Your task to perform on an android device: clear history in the chrome app Image 0: 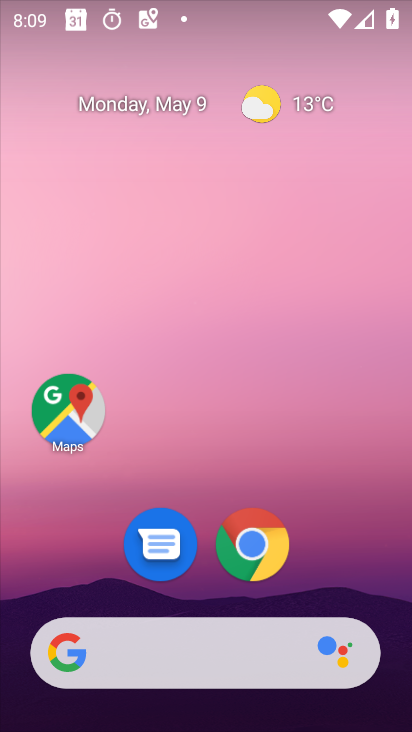
Step 0: drag from (361, 569) to (319, 14)
Your task to perform on an android device: clear history in the chrome app Image 1: 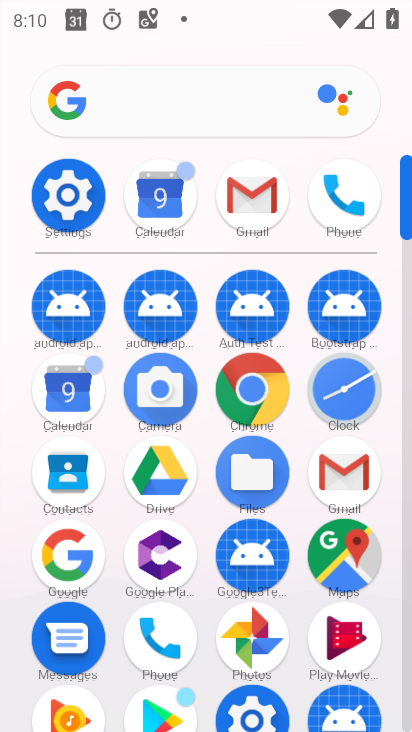
Step 1: click (264, 397)
Your task to perform on an android device: clear history in the chrome app Image 2: 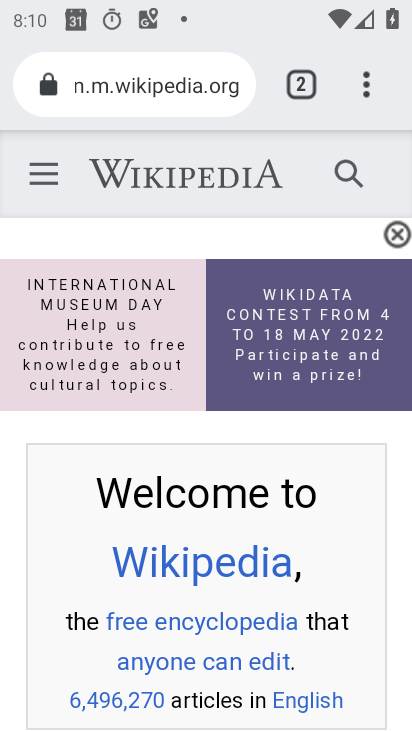
Step 2: drag from (370, 94) to (103, 482)
Your task to perform on an android device: clear history in the chrome app Image 3: 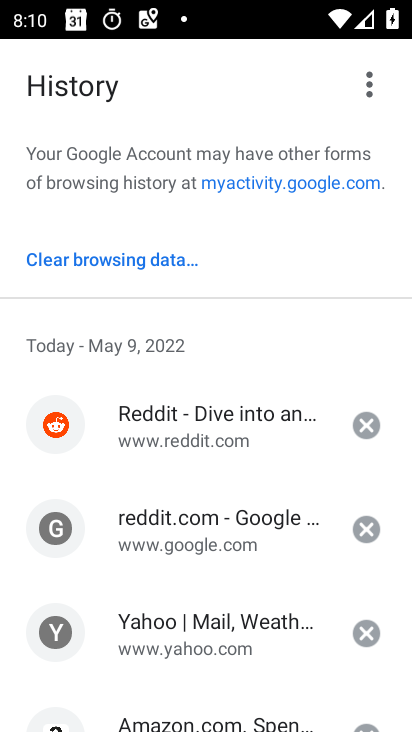
Step 3: click (68, 257)
Your task to perform on an android device: clear history in the chrome app Image 4: 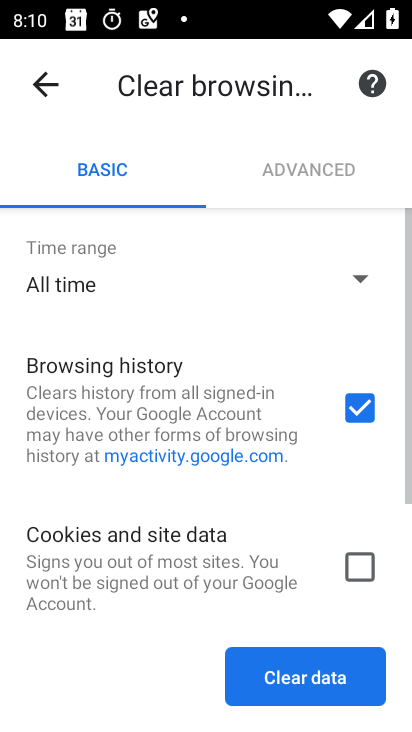
Step 4: click (306, 691)
Your task to perform on an android device: clear history in the chrome app Image 5: 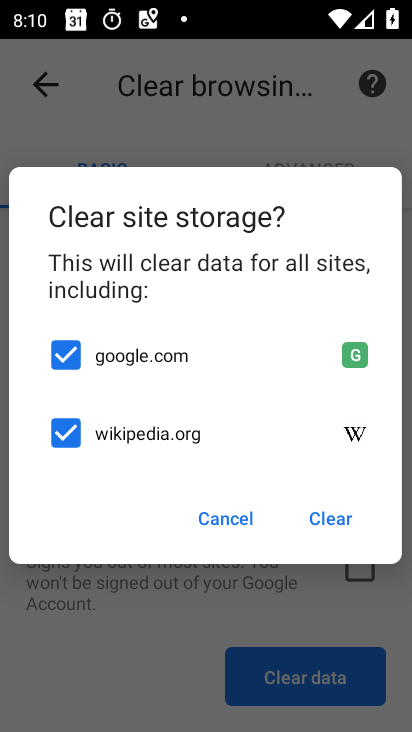
Step 5: click (329, 520)
Your task to perform on an android device: clear history in the chrome app Image 6: 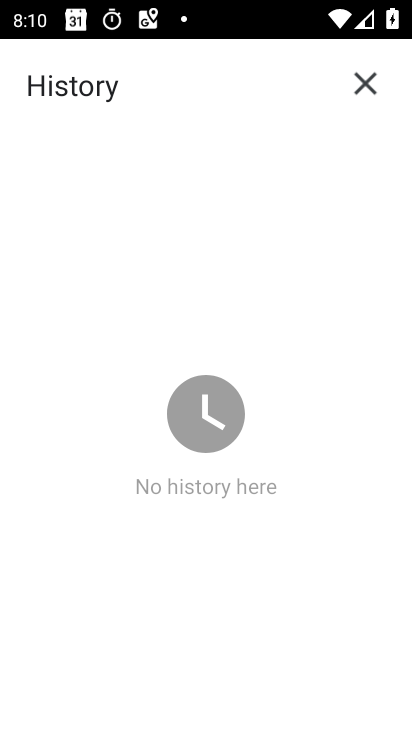
Step 6: task complete